Your task to perform on an android device: clear all cookies in the chrome app Image 0: 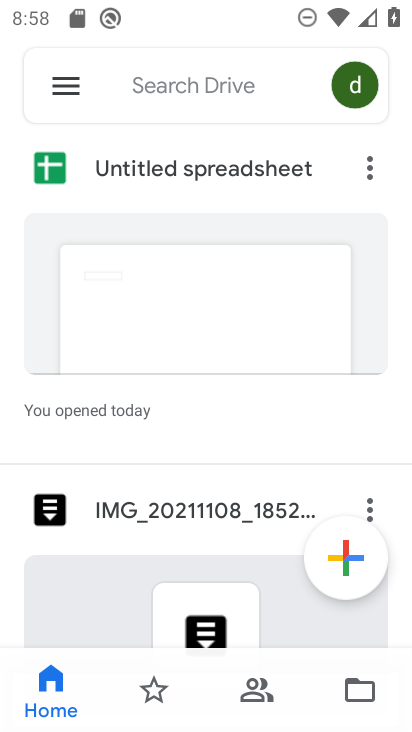
Step 0: press back button
Your task to perform on an android device: clear all cookies in the chrome app Image 1: 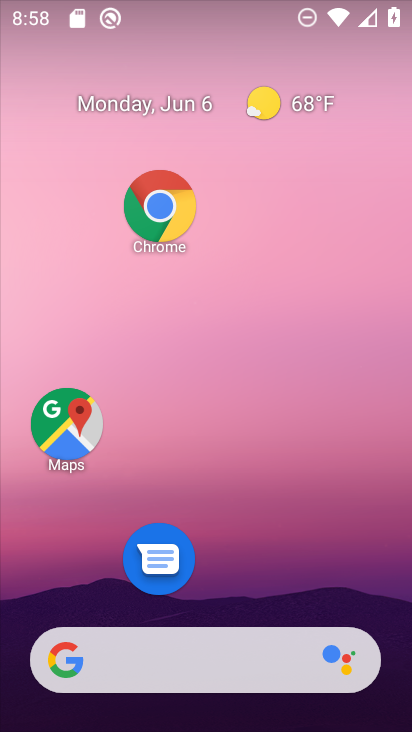
Step 1: drag from (262, 675) to (202, 167)
Your task to perform on an android device: clear all cookies in the chrome app Image 2: 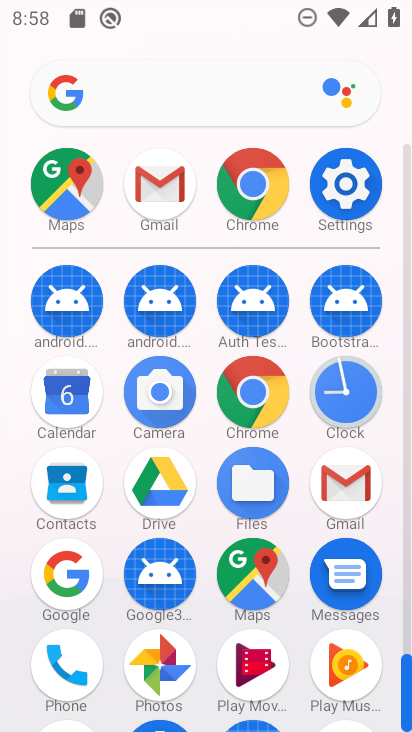
Step 2: click (257, 184)
Your task to perform on an android device: clear all cookies in the chrome app Image 3: 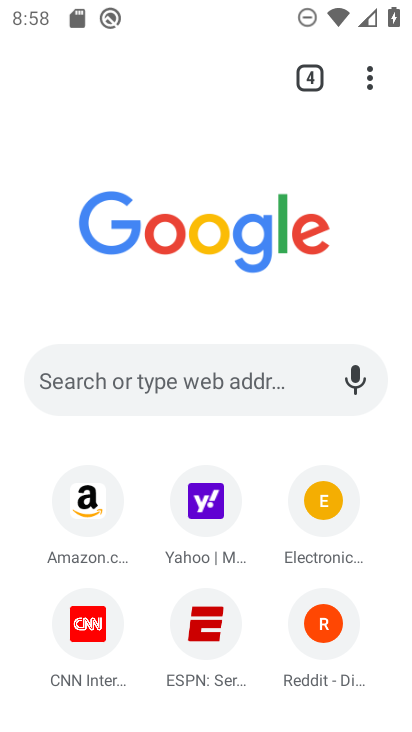
Step 3: click (372, 80)
Your task to perform on an android device: clear all cookies in the chrome app Image 4: 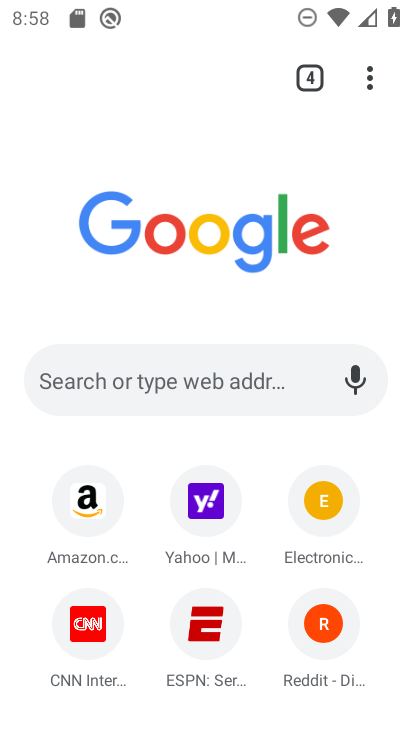
Step 4: click (366, 81)
Your task to perform on an android device: clear all cookies in the chrome app Image 5: 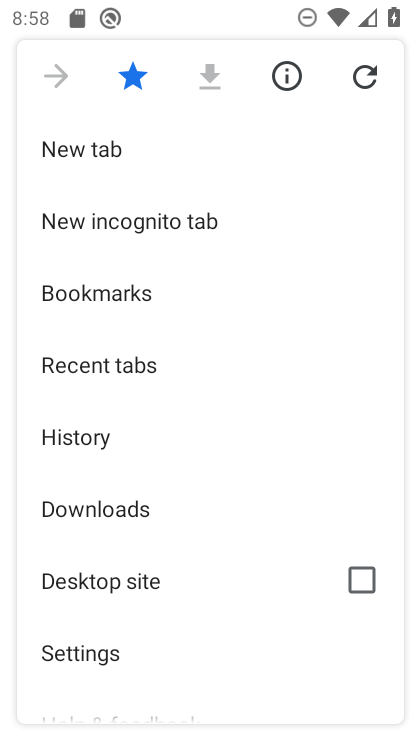
Step 5: click (100, 649)
Your task to perform on an android device: clear all cookies in the chrome app Image 6: 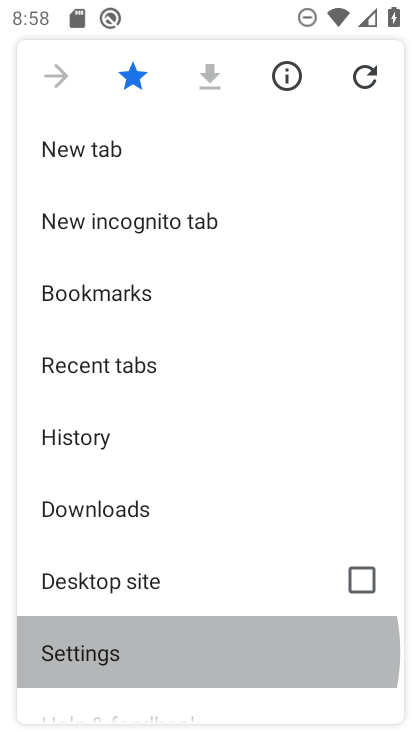
Step 6: click (98, 647)
Your task to perform on an android device: clear all cookies in the chrome app Image 7: 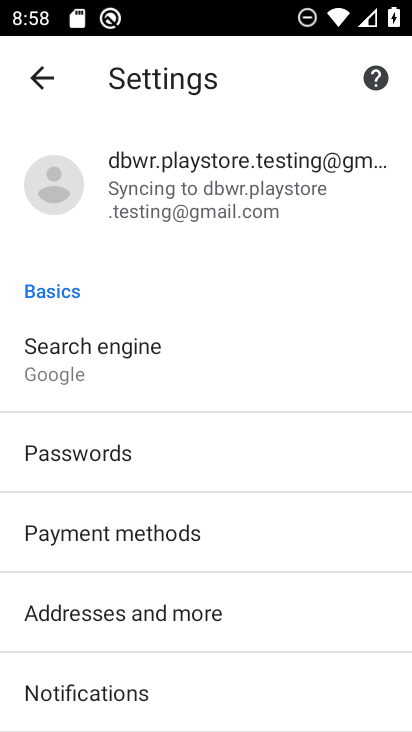
Step 7: drag from (203, 561) to (125, 192)
Your task to perform on an android device: clear all cookies in the chrome app Image 8: 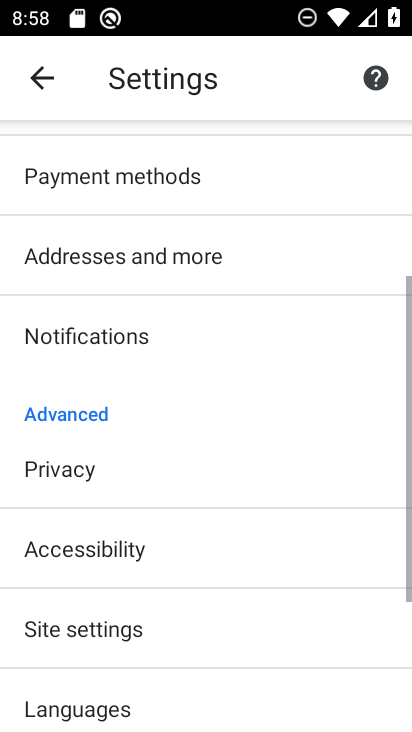
Step 8: drag from (193, 463) to (167, 202)
Your task to perform on an android device: clear all cookies in the chrome app Image 9: 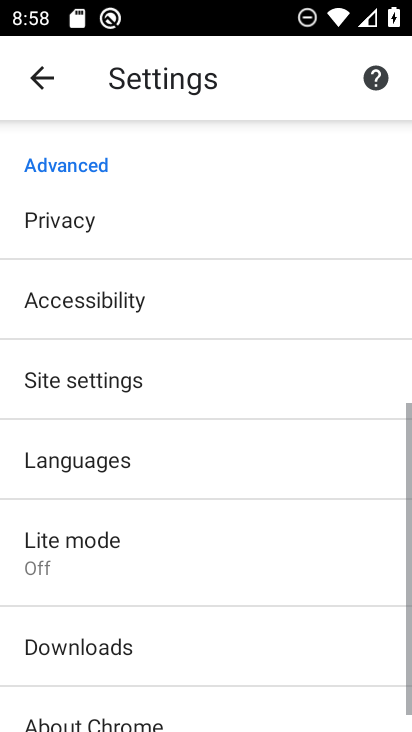
Step 9: drag from (210, 472) to (185, 268)
Your task to perform on an android device: clear all cookies in the chrome app Image 10: 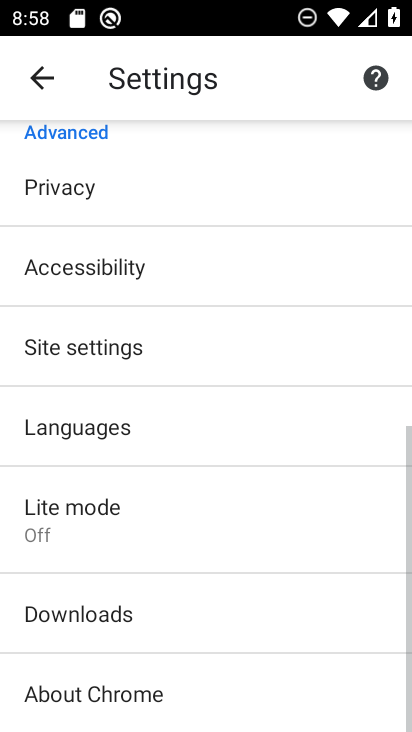
Step 10: click (64, 347)
Your task to perform on an android device: clear all cookies in the chrome app Image 11: 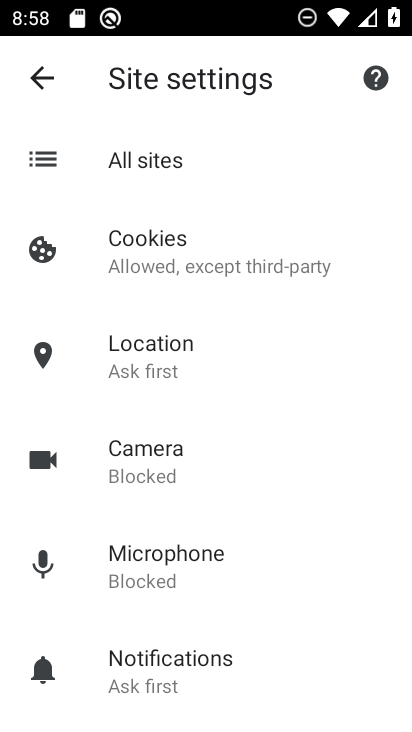
Step 11: click (122, 261)
Your task to perform on an android device: clear all cookies in the chrome app Image 12: 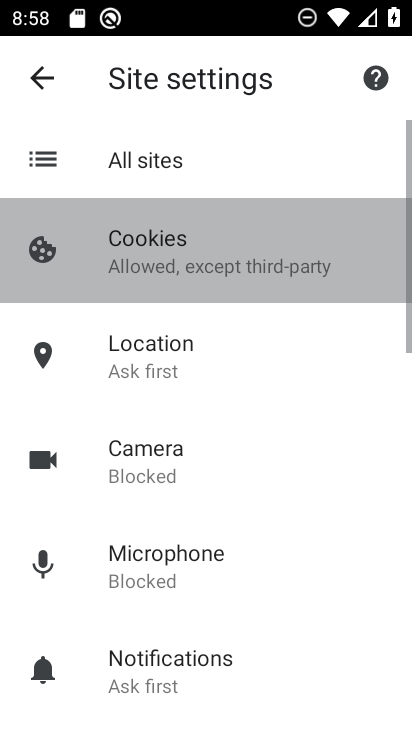
Step 12: click (121, 260)
Your task to perform on an android device: clear all cookies in the chrome app Image 13: 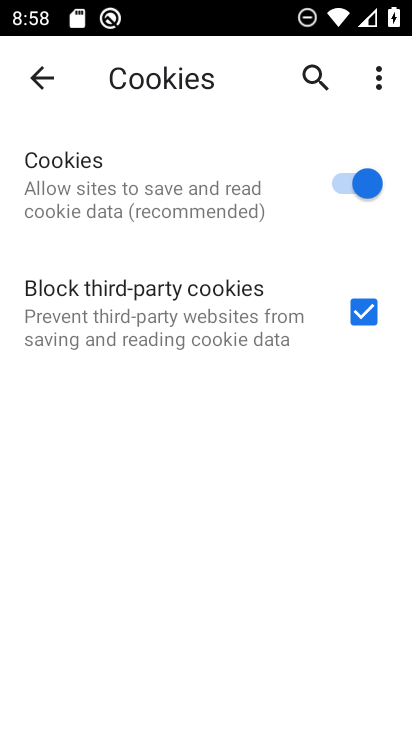
Step 13: task complete